Your task to perform on an android device: change notifications settings Image 0: 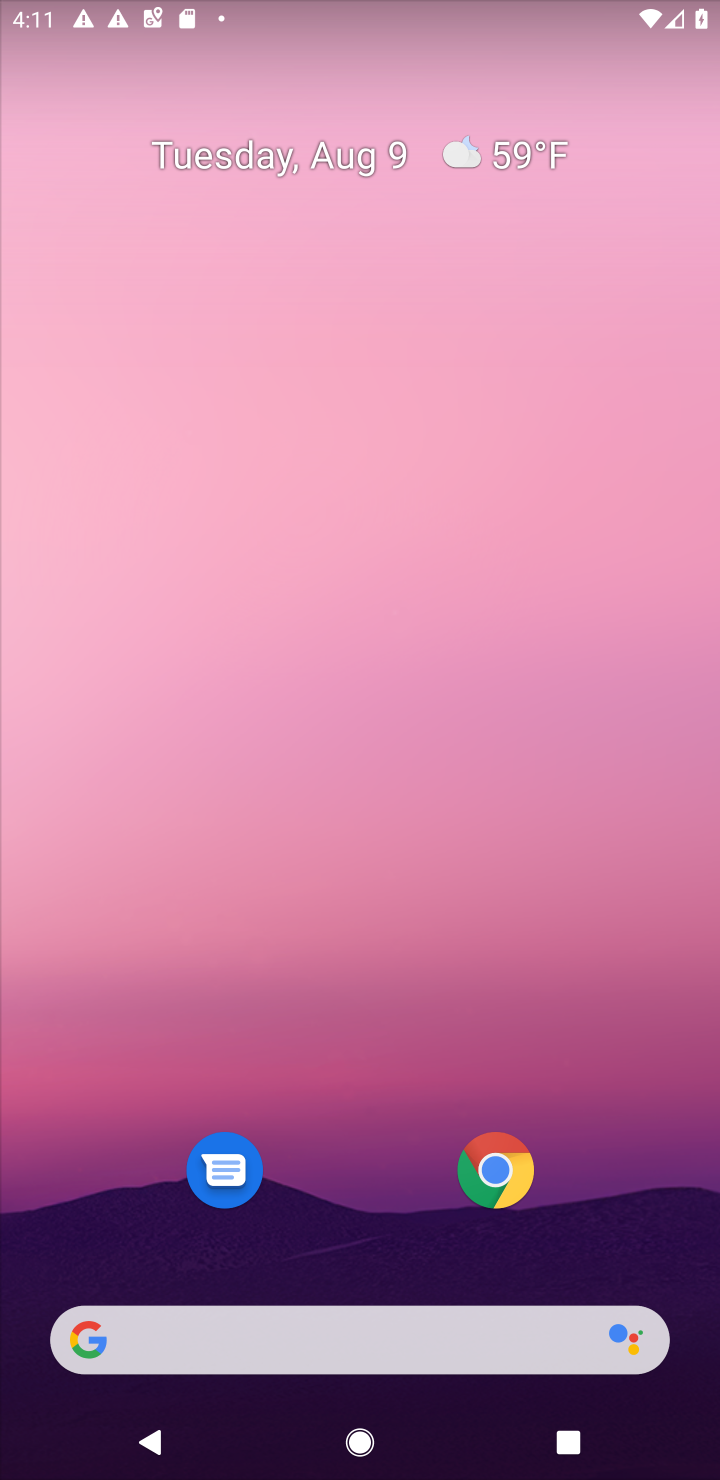
Step 0: press home button
Your task to perform on an android device: change notifications settings Image 1: 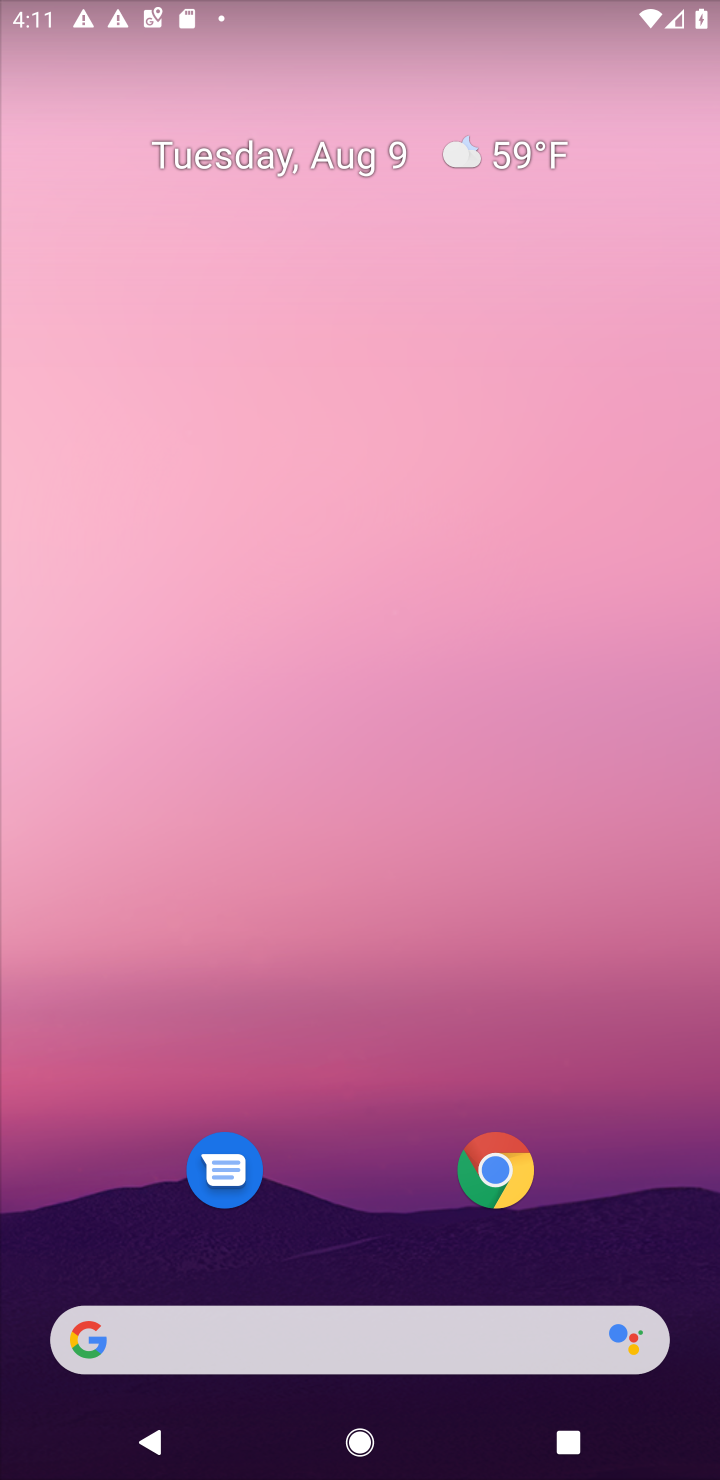
Step 1: drag from (376, 1241) to (295, 256)
Your task to perform on an android device: change notifications settings Image 2: 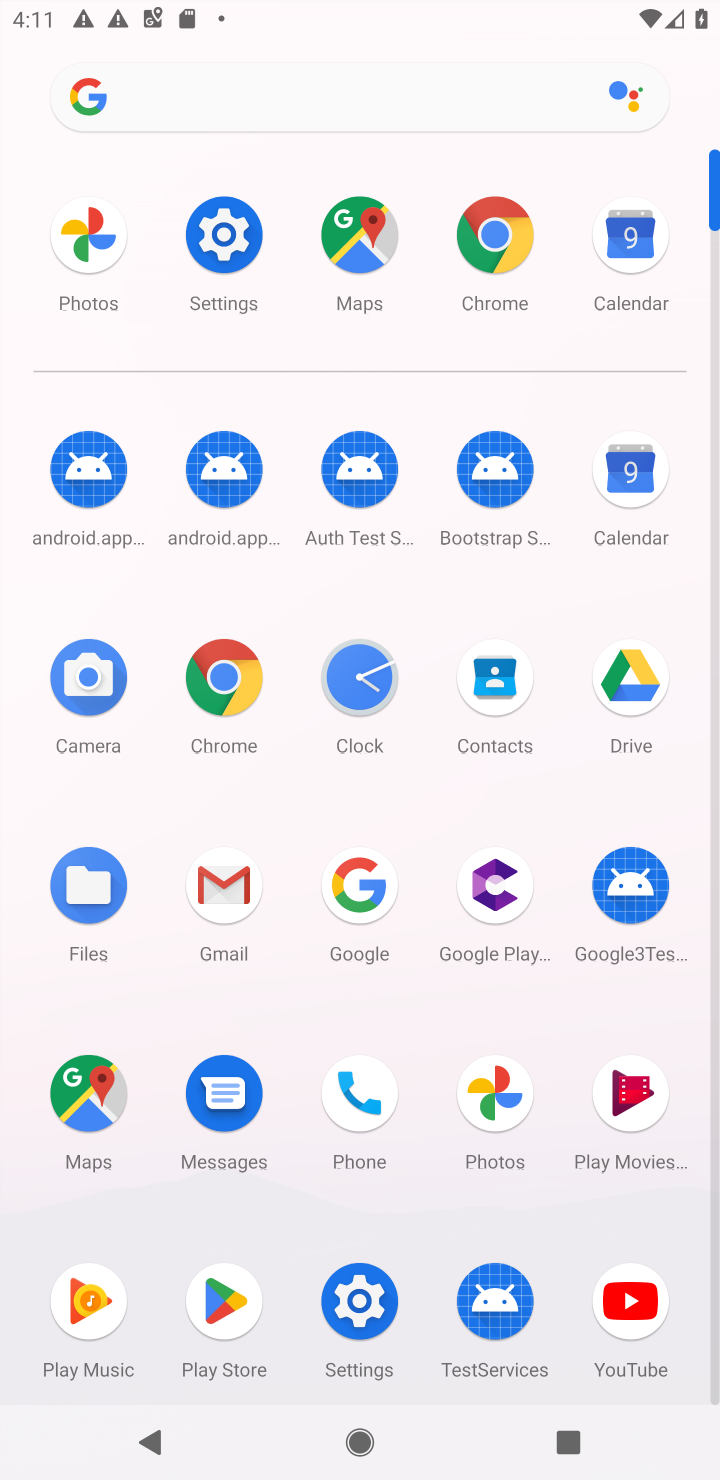
Step 2: click (210, 233)
Your task to perform on an android device: change notifications settings Image 3: 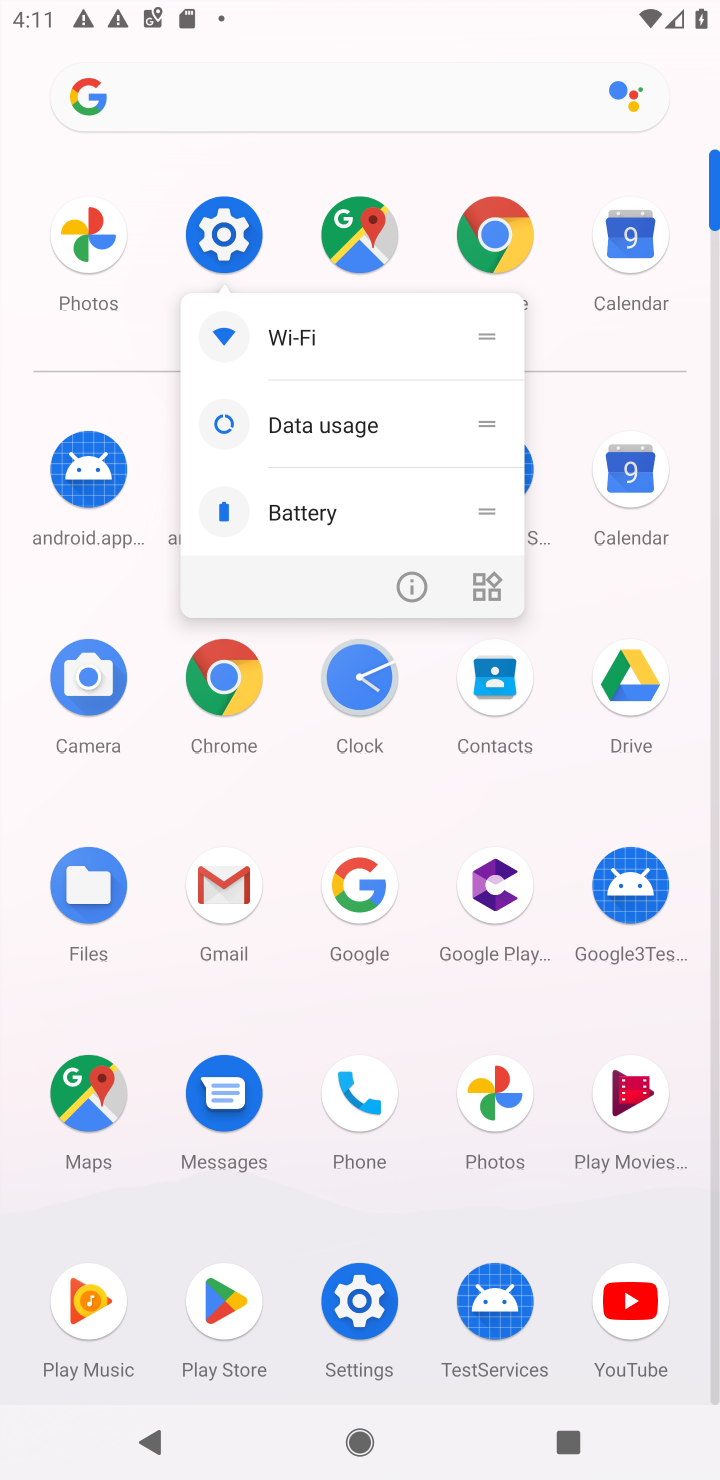
Step 3: click (211, 229)
Your task to perform on an android device: change notifications settings Image 4: 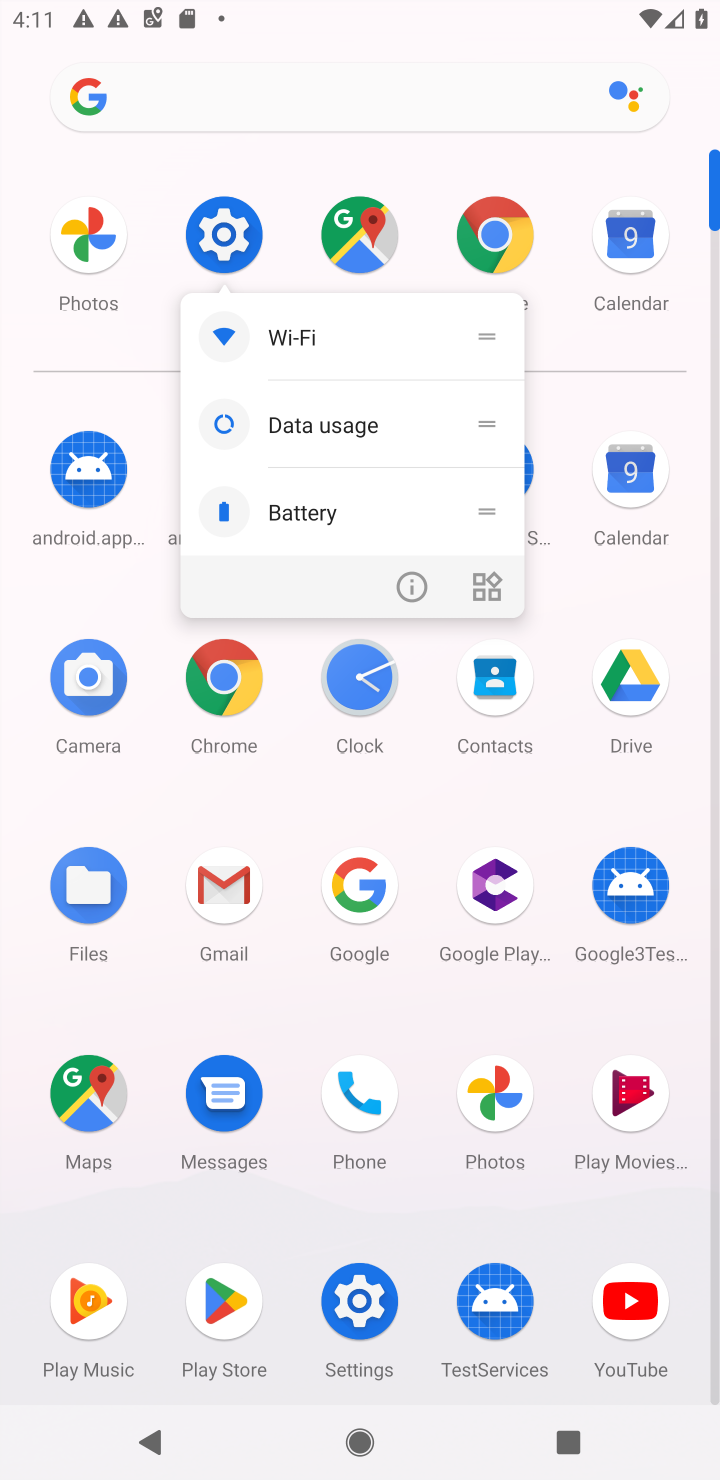
Step 4: click (224, 232)
Your task to perform on an android device: change notifications settings Image 5: 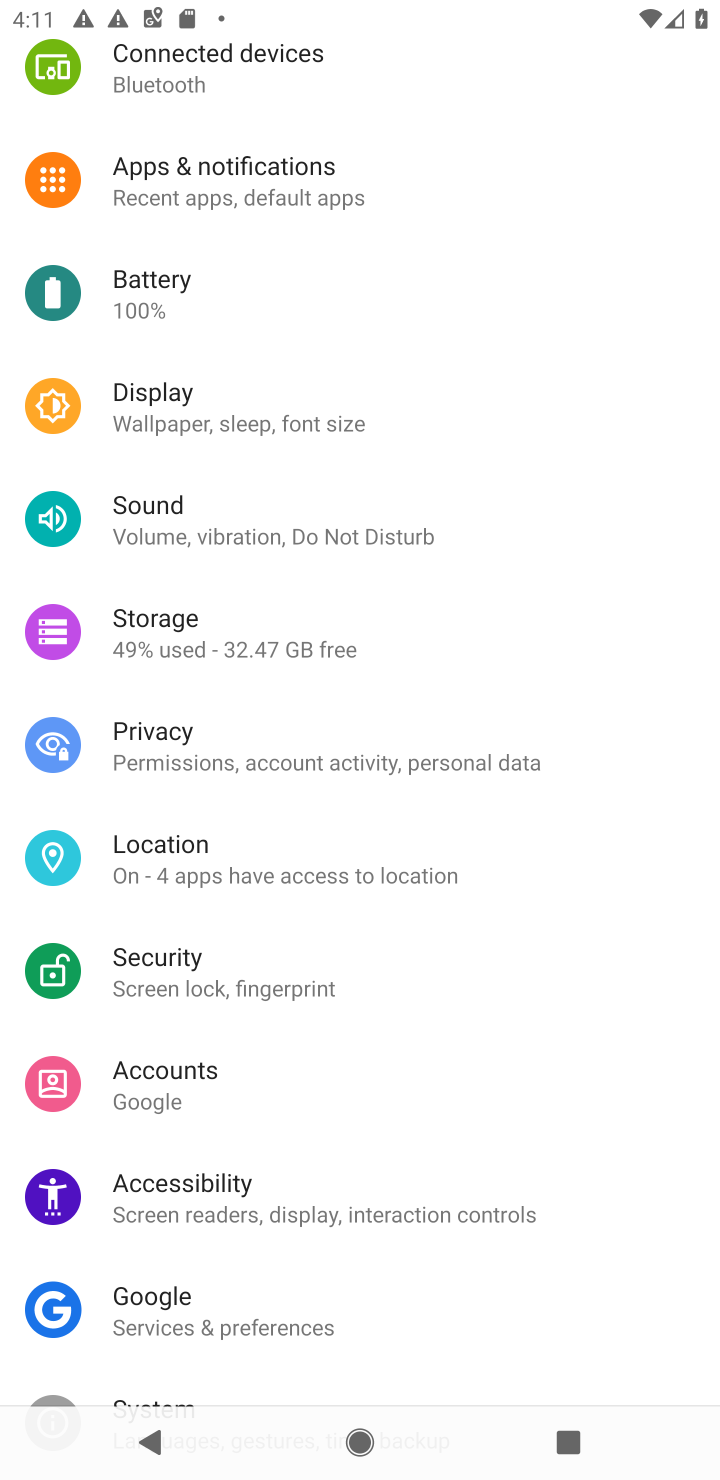
Step 5: click (160, 186)
Your task to perform on an android device: change notifications settings Image 6: 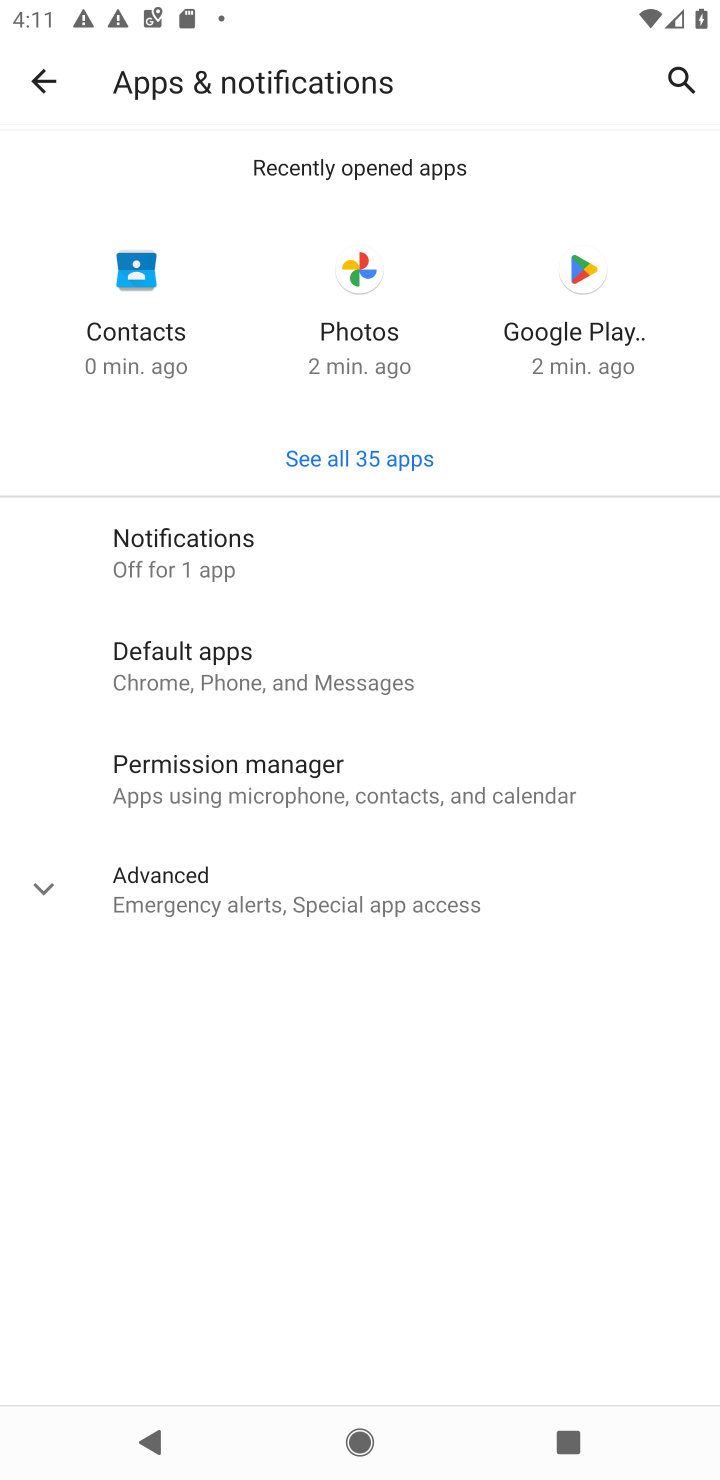
Step 6: click (252, 563)
Your task to perform on an android device: change notifications settings Image 7: 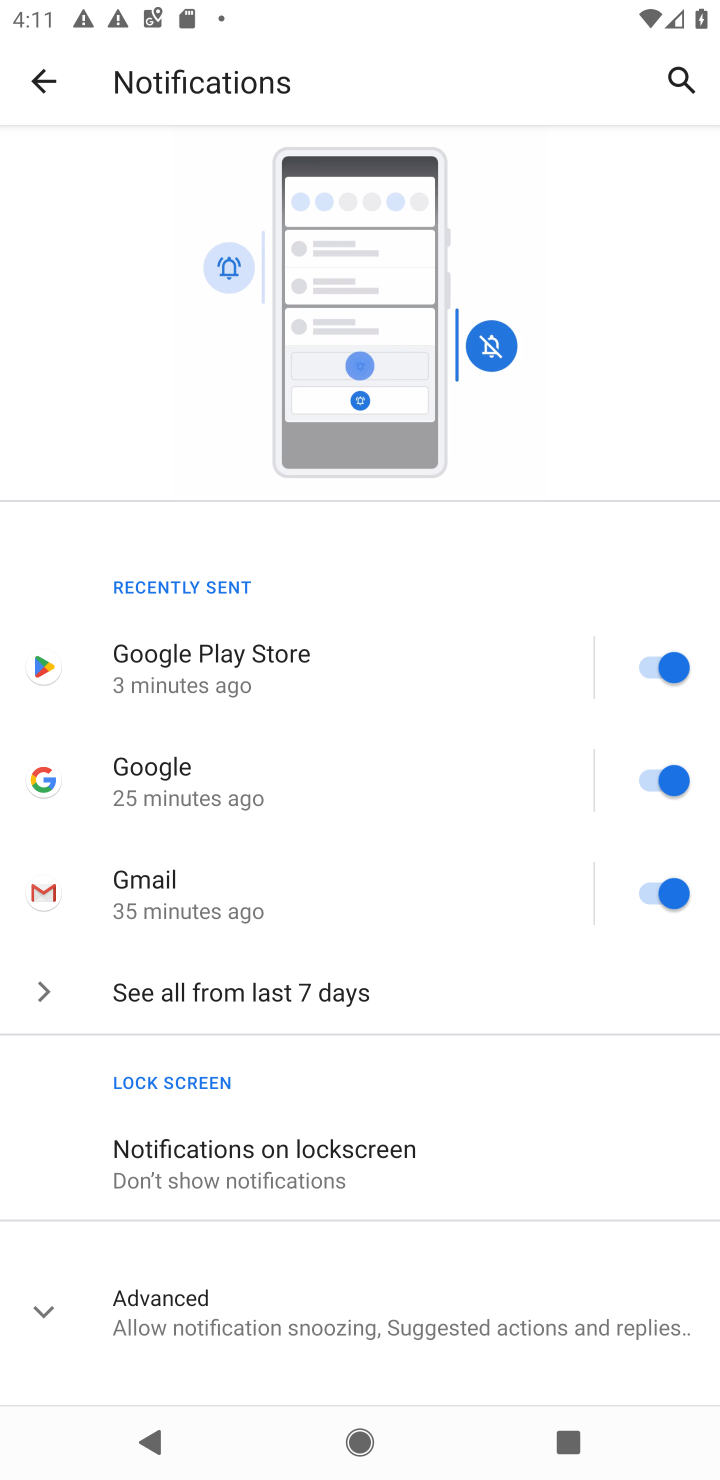
Step 7: click (474, 347)
Your task to perform on an android device: change notifications settings Image 8: 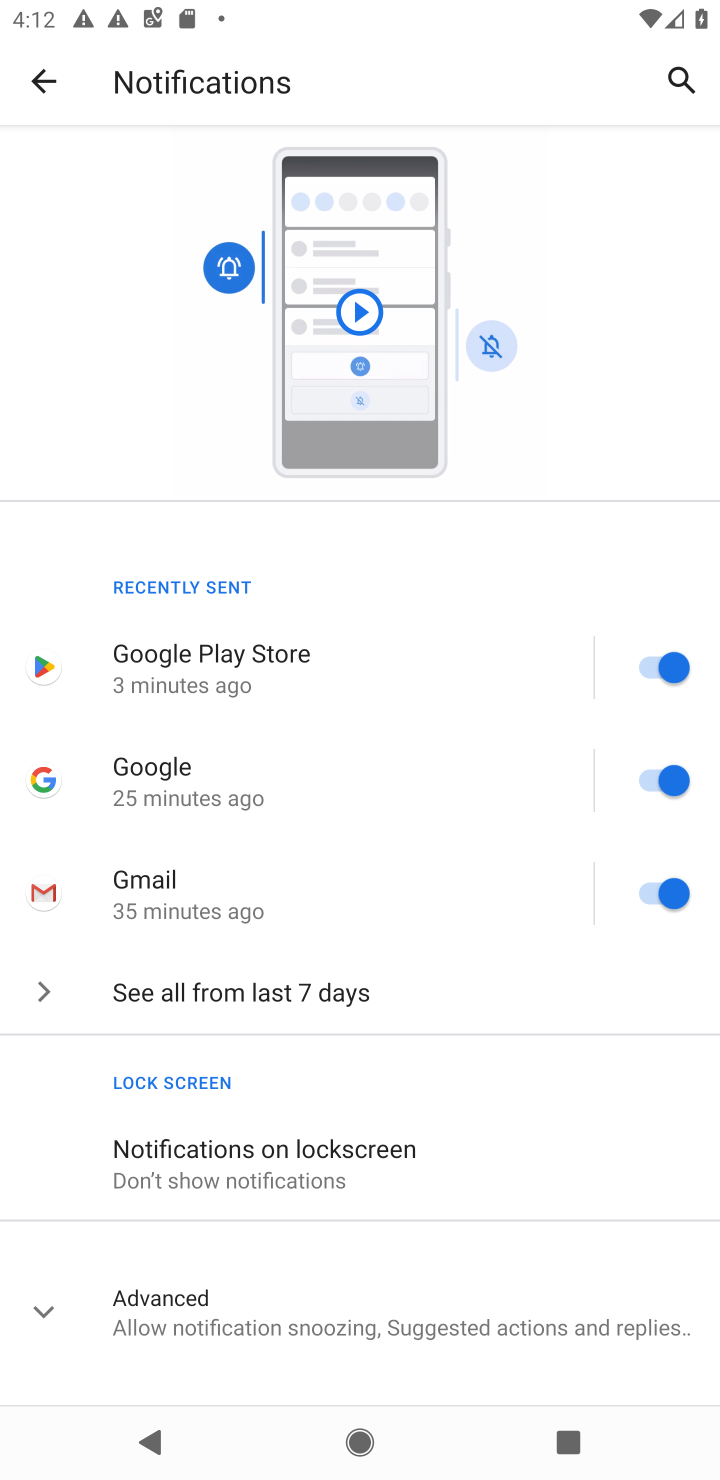
Step 8: task complete